Your task to perform on an android device: Go to Yahoo.com Image 0: 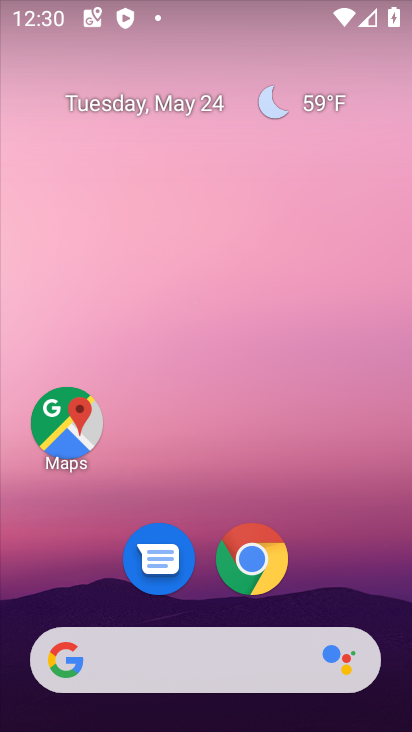
Step 0: click (241, 568)
Your task to perform on an android device: Go to Yahoo.com Image 1: 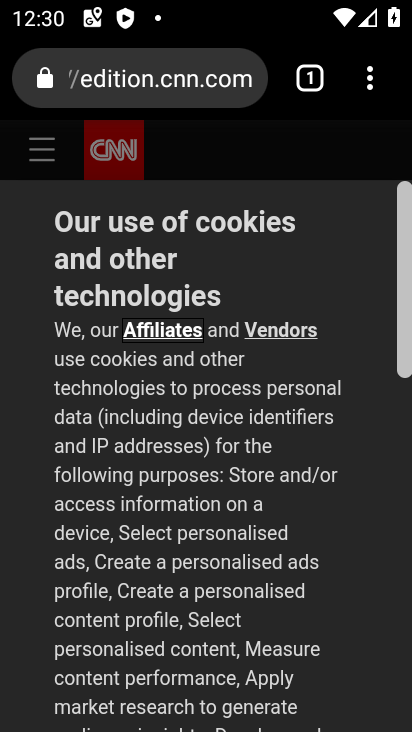
Step 1: click (258, 80)
Your task to perform on an android device: Go to Yahoo.com Image 2: 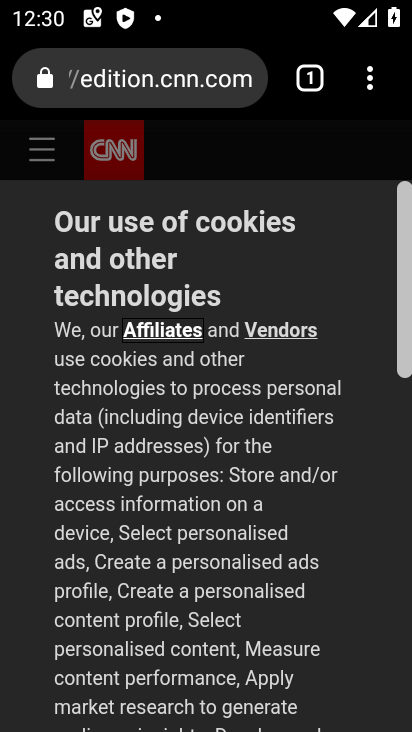
Step 2: click (258, 80)
Your task to perform on an android device: Go to Yahoo.com Image 3: 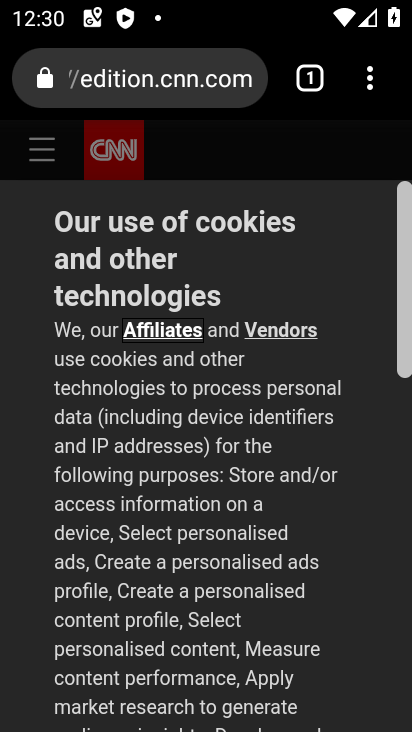
Step 3: click (258, 80)
Your task to perform on an android device: Go to Yahoo.com Image 4: 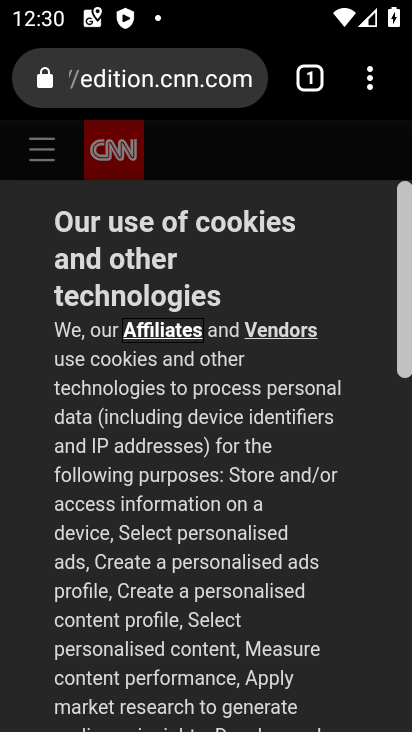
Step 4: click (297, 83)
Your task to perform on an android device: Go to Yahoo.com Image 5: 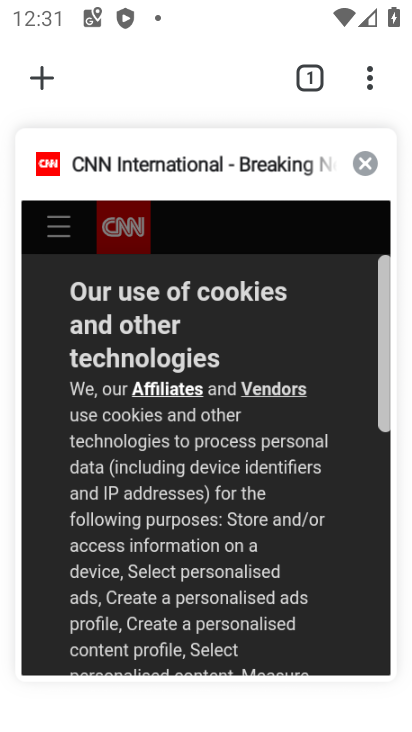
Step 5: click (355, 165)
Your task to perform on an android device: Go to Yahoo.com Image 6: 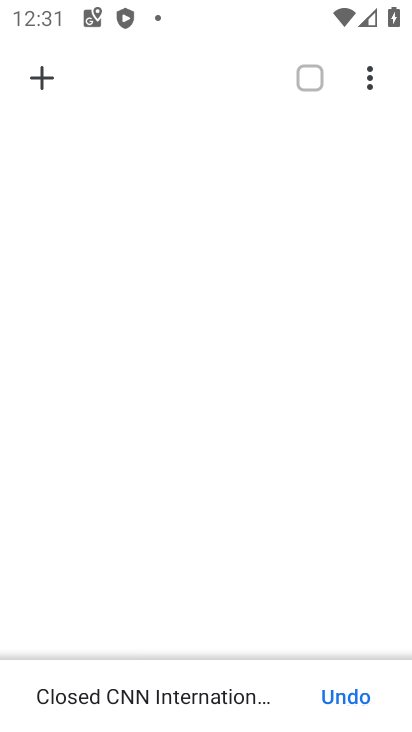
Step 6: click (44, 73)
Your task to perform on an android device: Go to Yahoo.com Image 7: 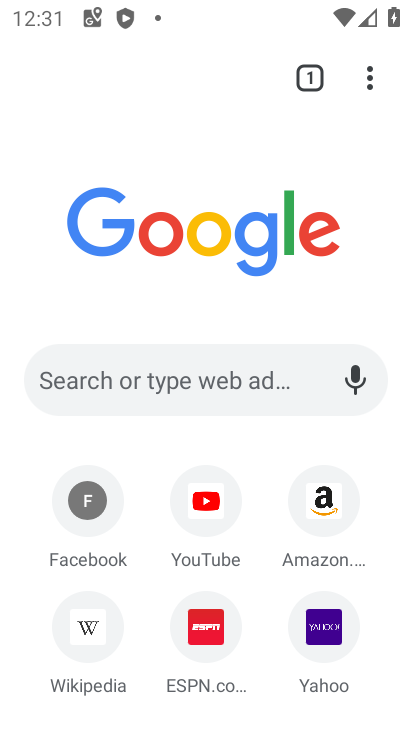
Step 7: click (75, 377)
Your task to perform on an android device: Go to Yahoo.com Image 8: 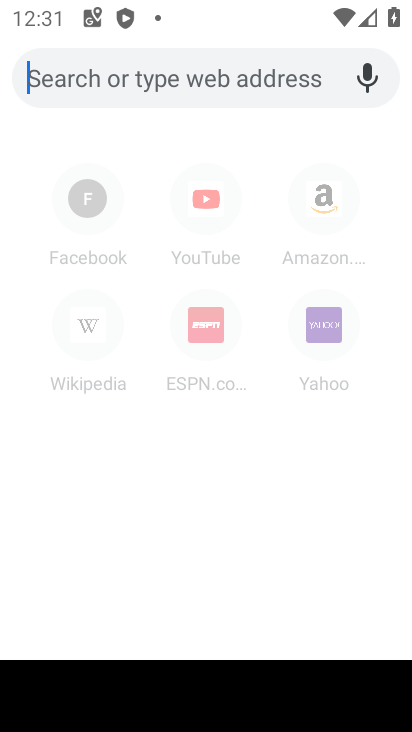
Step 8: type "Yahoo.com"
Your task to perform on an android device: Go to Yahoo.com Image 9: 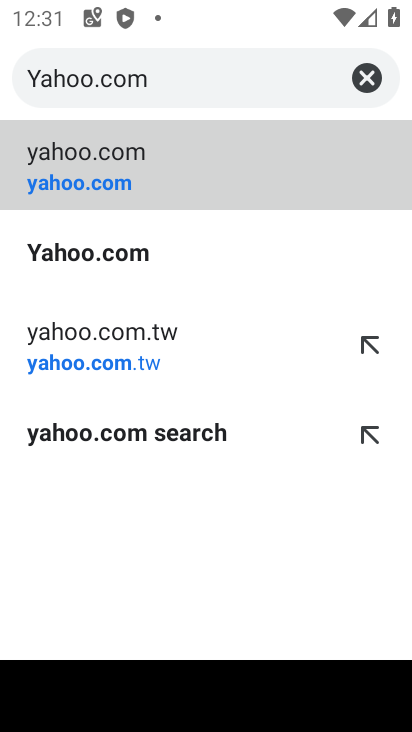
Step 9: click (100, 254)
Your task to perform on an android device: Go to Yahoo.com Image 10: 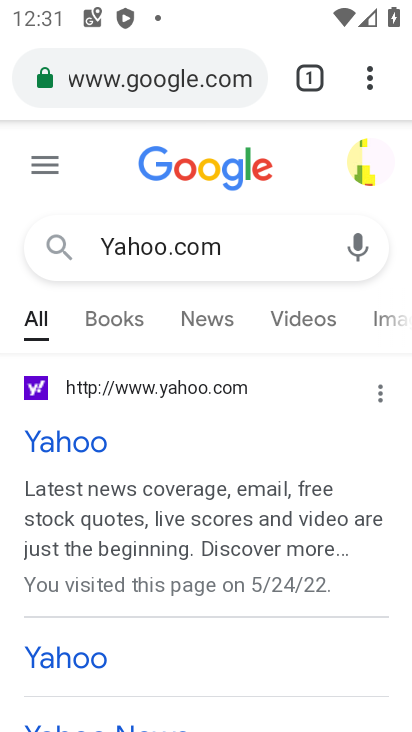
Step 10: click (100, 254)
Your task to perform on an android device: Go to Yahoo.com Image 11: 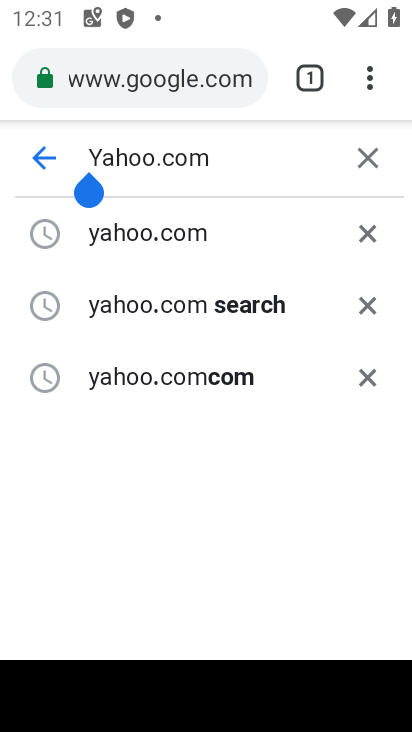
Step 11: click (204, 245)
Your task to perform on an android device: Go to Yahoo.com Image 12: 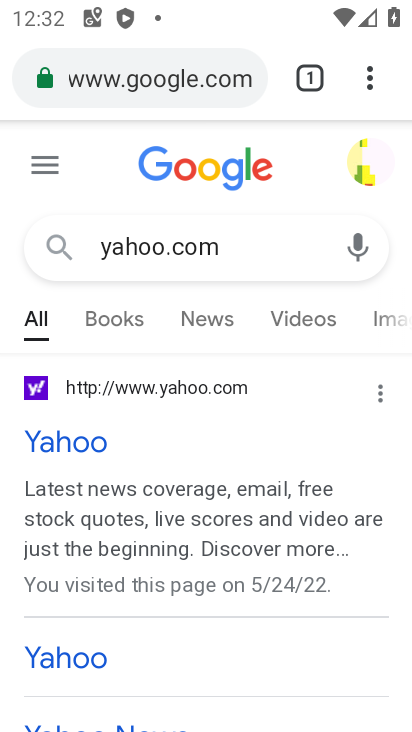
Step 12: task complete